Your task to perform on an android device: change timer sound Image 0: 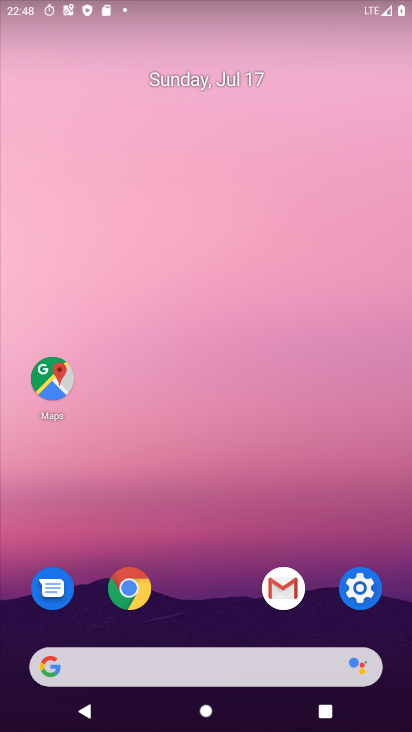
Step 0: click (349, 590)
Your task to perform on an android device: change timer sound Image 1: 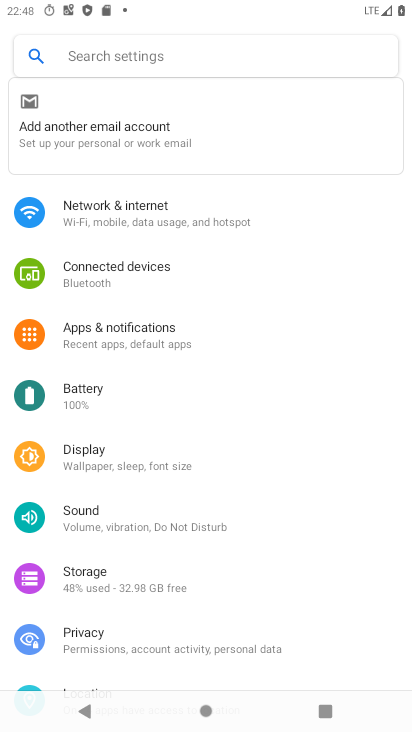
Step 1: press home button
Your task to perform on an android device: change timer sound Image 2: 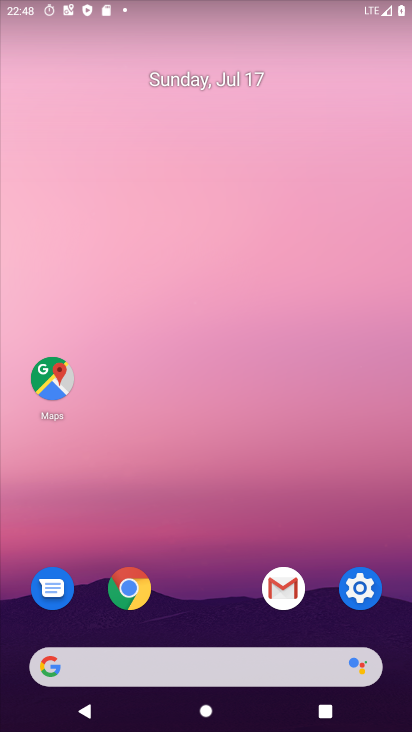
Step 2: drag from (291, 680) to (303, 293)
Your task to perform on an android device: change timer sound Image 3: 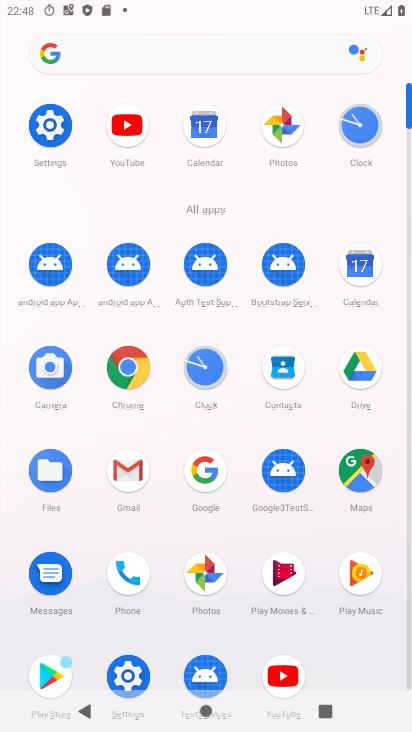
Step 3: click (199, 375)
Your task to perform on an android device: change timer sound Image 4: 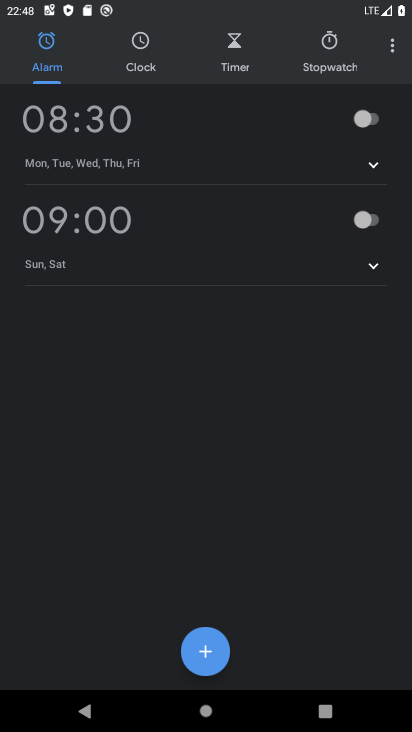
Step 4: click (390, 52)
Your task to perform on an android device: change timer sound Image 5: 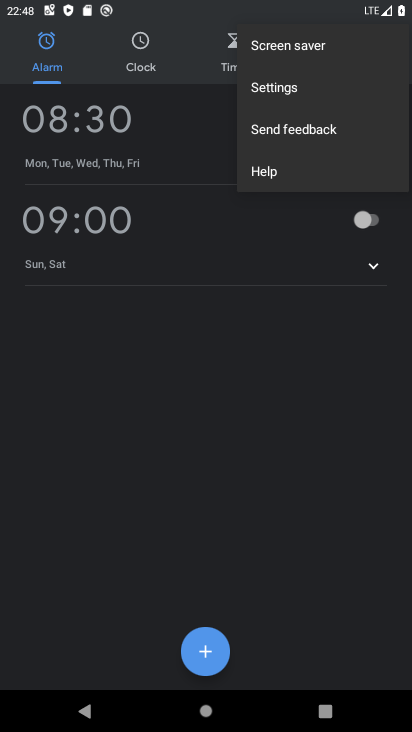
Step 5: click (297, 102)
Your task to perform on an android device: change timer sound Image 6: 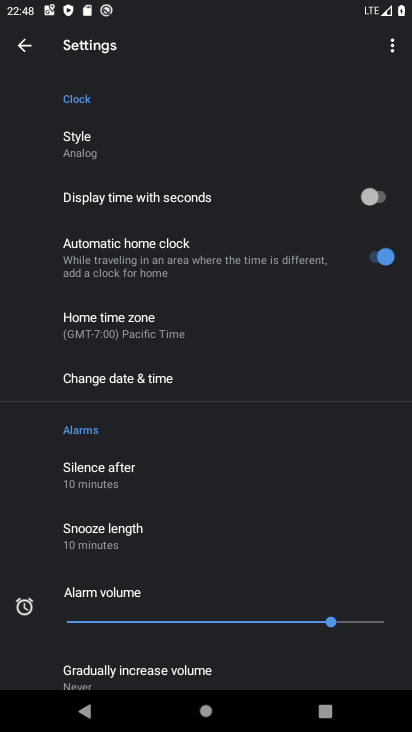
Step 6: drag from (151, 555) to (142, 295)
Your task to perform on an android device: change timer sound Image 7: 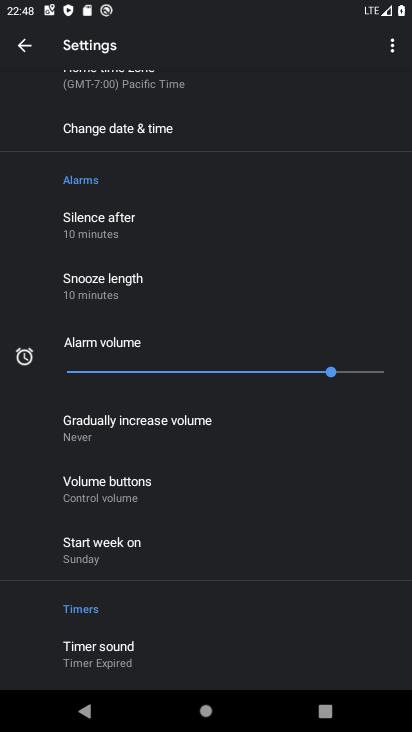
Step 7: click (130, 642)
Your task to perform on an android device: change timer sound Image 8: 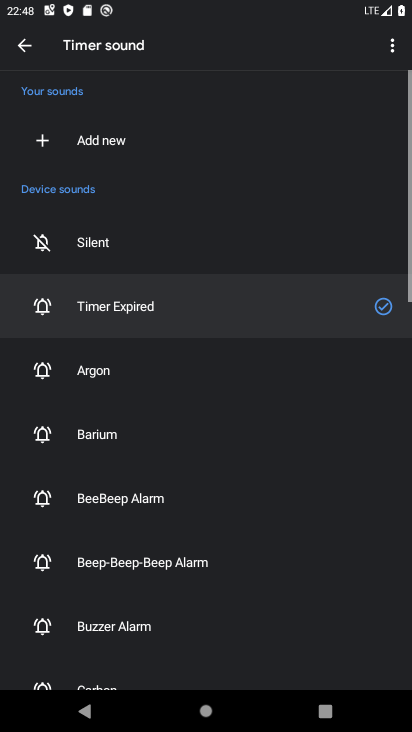
Step 8: click (120, 548)
Your task to perform on an android device: change timer sound Image 9: 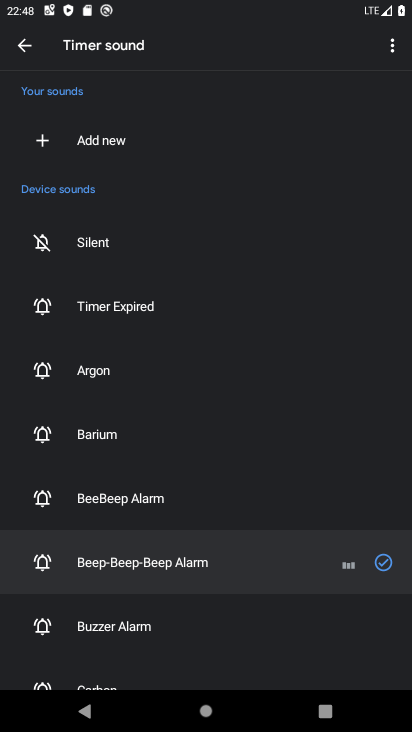
Step 9: task complete